Your task to perform on an android device: toggle javascript in the chrome app Image 0: 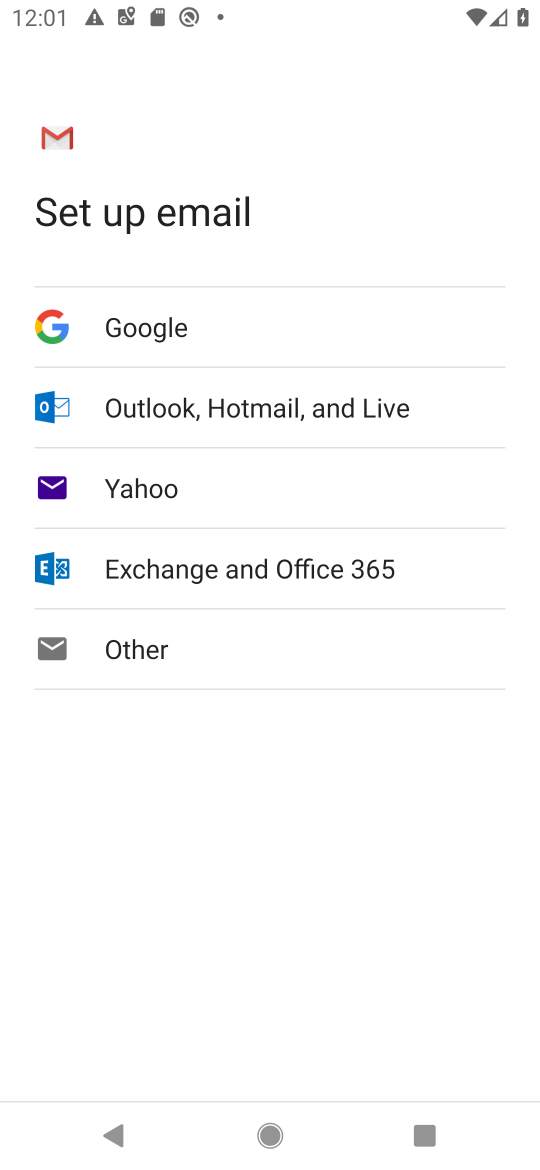
Step 0: press home button
Your task to perform on an android device: toggle javascript in the chrome app Image 1: 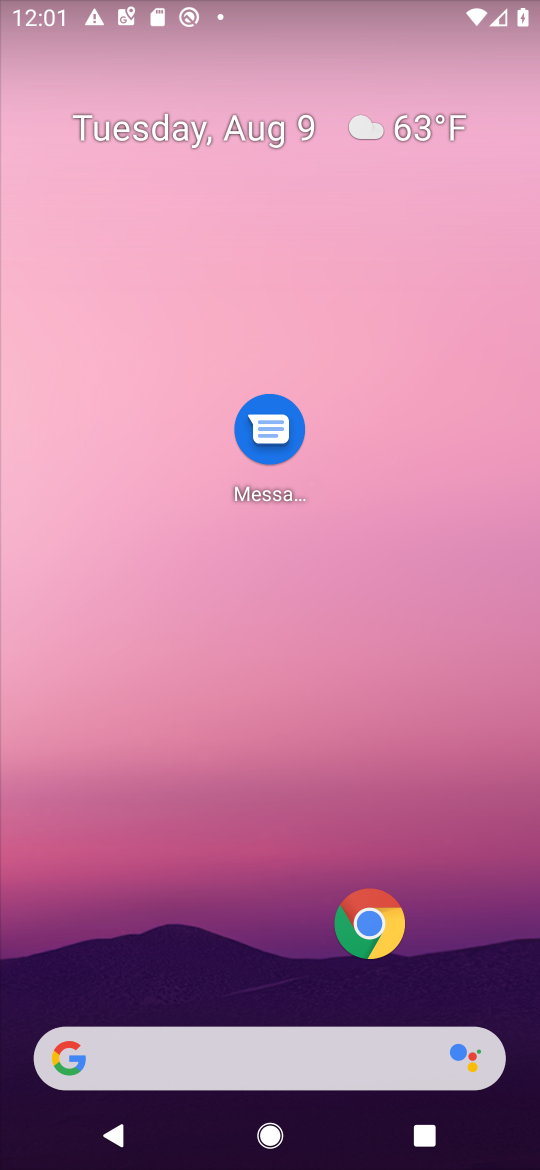
Step 1: click (374, 918)
Your task to perform on an android device: toggle javascript in the chrome app Image 2: 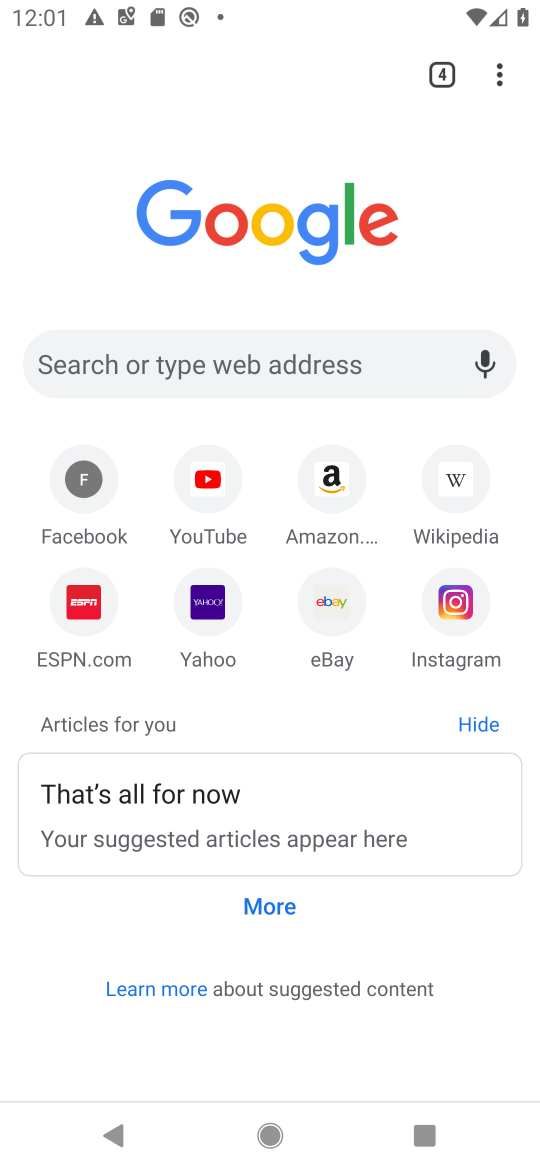
Step 2: click (504, 82)
Your task to perform on an android device: toggle javascript in the chrome app Image 3: 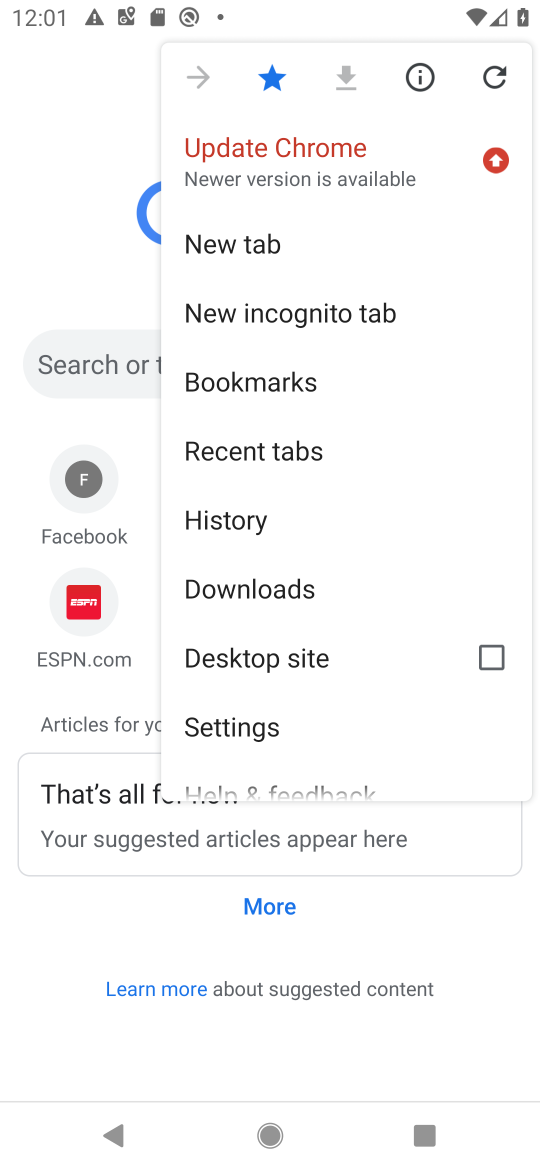
Step 3: click (250, 733)
Your task to perform on an android device: toggle javascript in the chrome app Image 4: 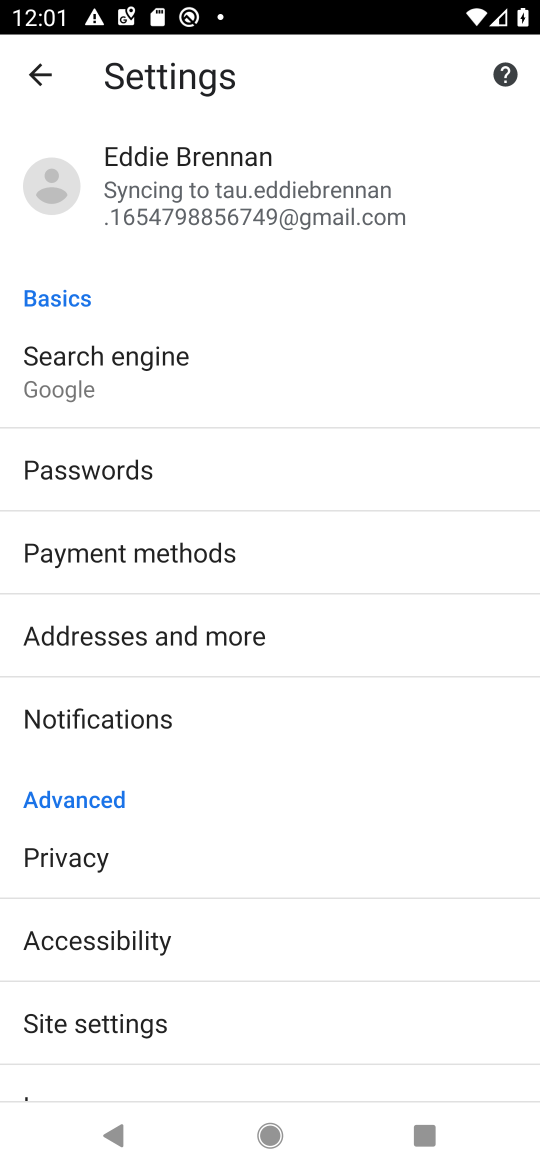
Step 4: click (68, 1019)
Your task to perform on an android device: toggle javascript in the chrome app Image 5: 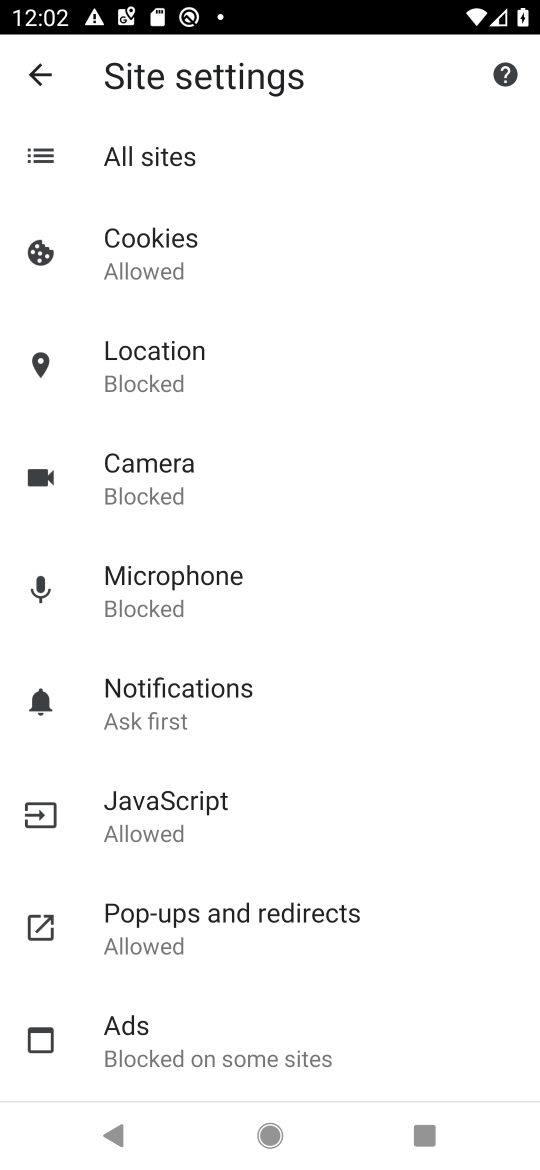
Step 5: click (182, 824)
Your task to perform on an android device: toggle javascript in the chrome app Image 6: 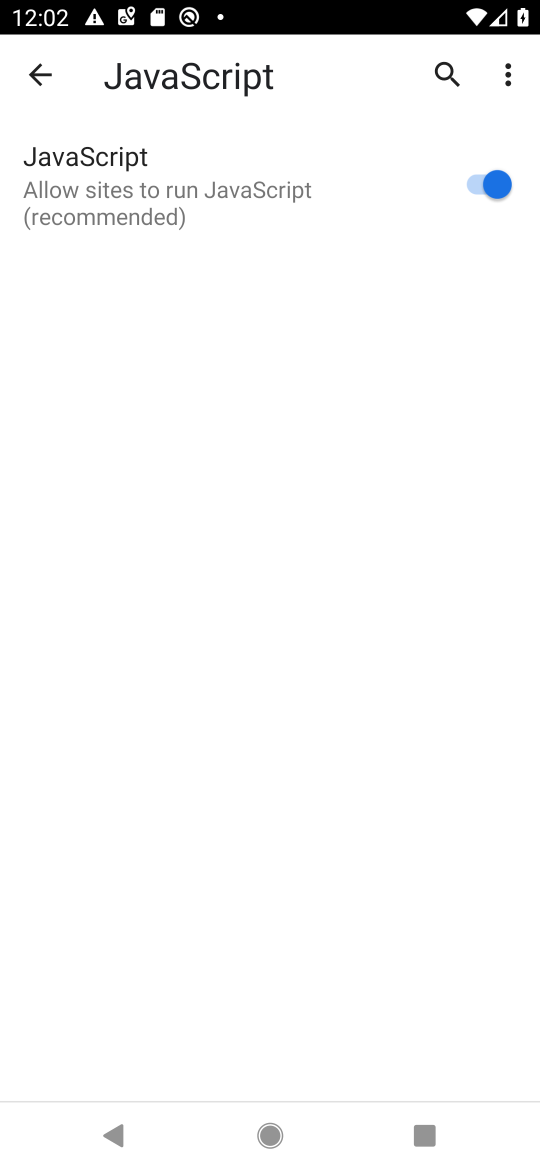
Step 6: task complete